Your task to perform on an android device: Go to ESPN.com Image 0: 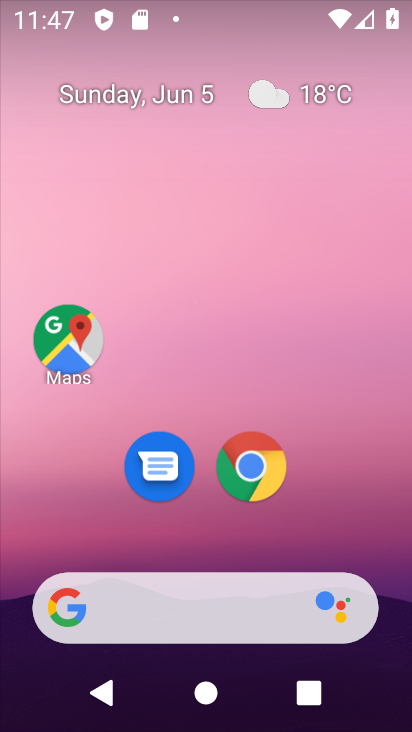
Step 0: drag from (338, 510) to (201, 45)
Your task to perform on an android device: Go to ESPN.com Image 1: 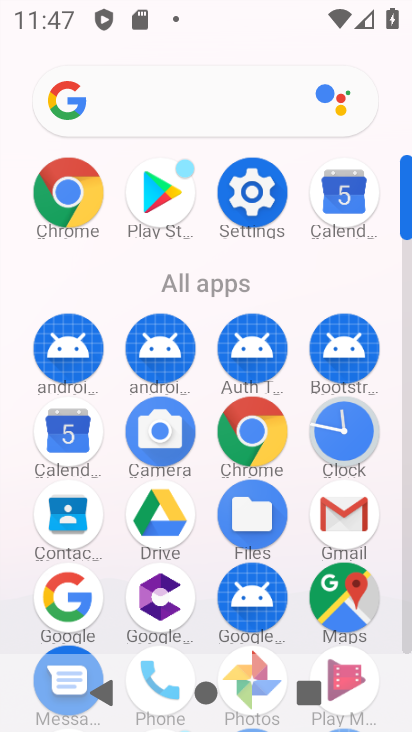
Step 1: click (255, 432)
Your task to perform on an android device: Go to ESPN.com Image 2: 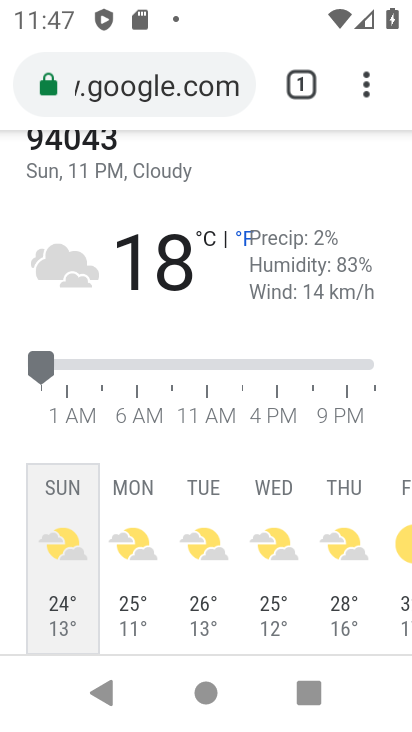
Step 2: click (131, 76)
Your task to perform on an android device: Go to ESPN.com Image 3: 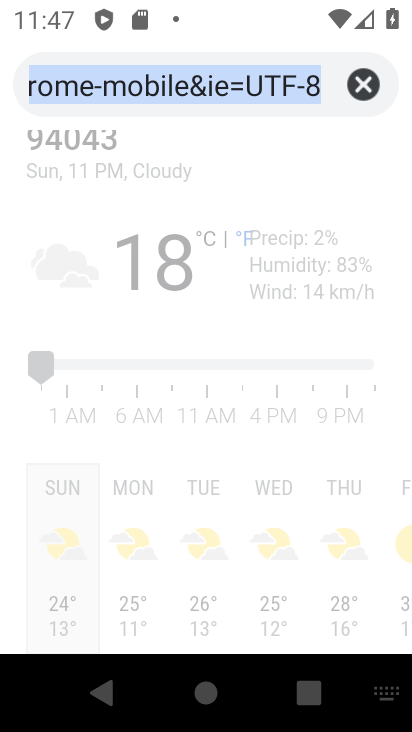
Step 3: click (357, 77)
Your task to perform on an android device: Go to ESPN.com Image 4: 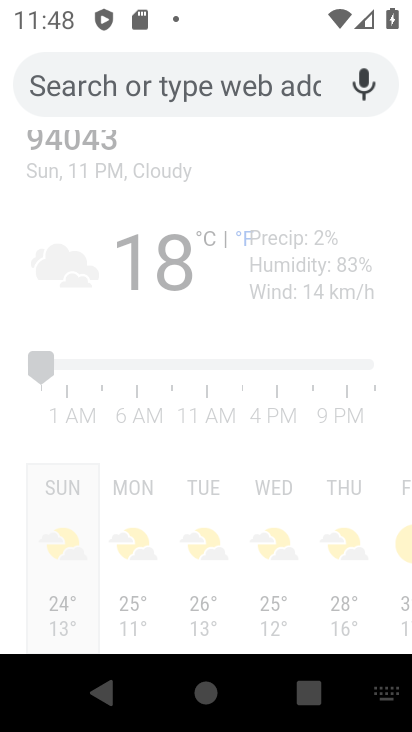
Step 4: type " ESPN.com"
Your task to perform on an android device: Go to ESPN.com Image 5: 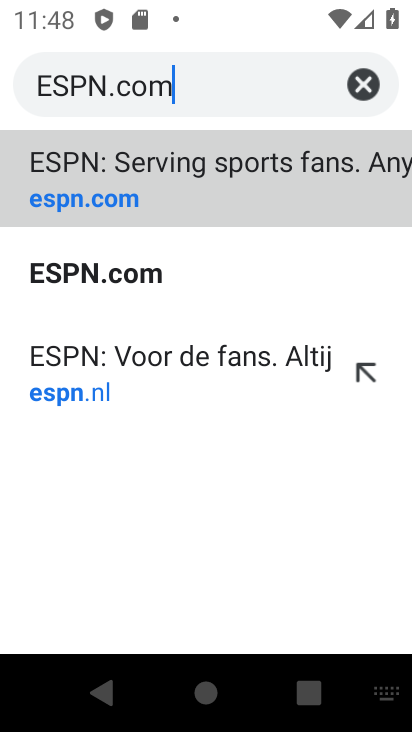
Step 5: type ""
Your task to perform on an android device: Go to ESPN.com Image 6: 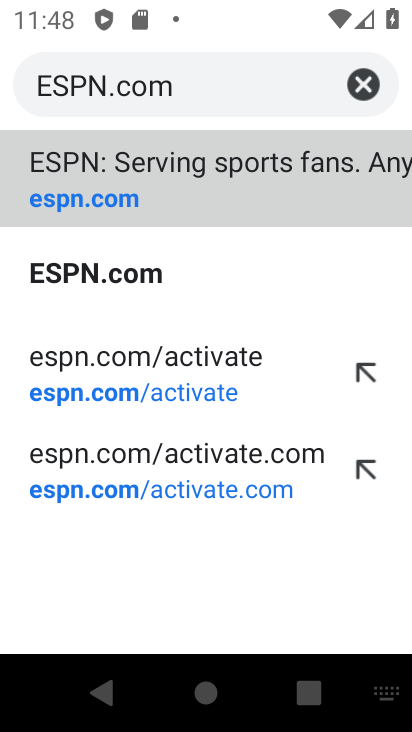
Step 6: click (135, 176)
Your task to perform on an android device: Go to ESPN.com Image 7: 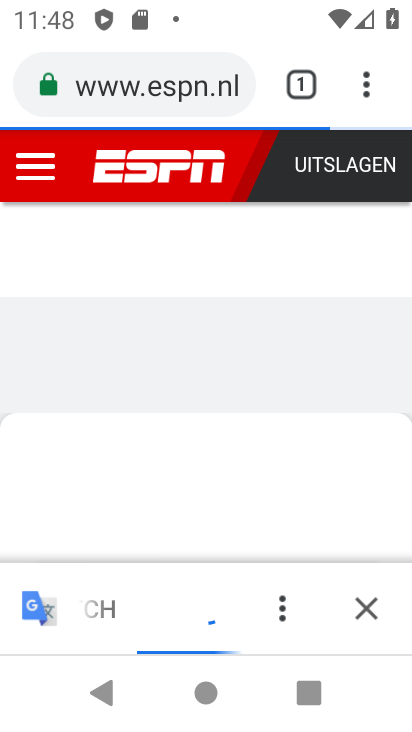
Step 7: task complete